Your task to perform on an android device: What's the weather today? Image 0: 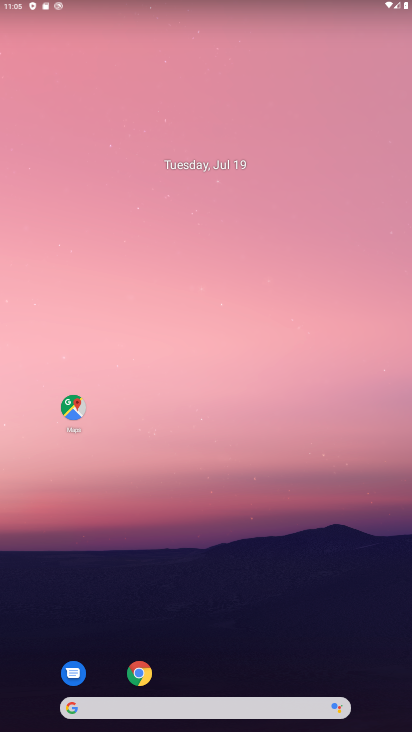
Step 0: click (204, 701)
Your task to perform on an android device: What's the weather today? Image 1: 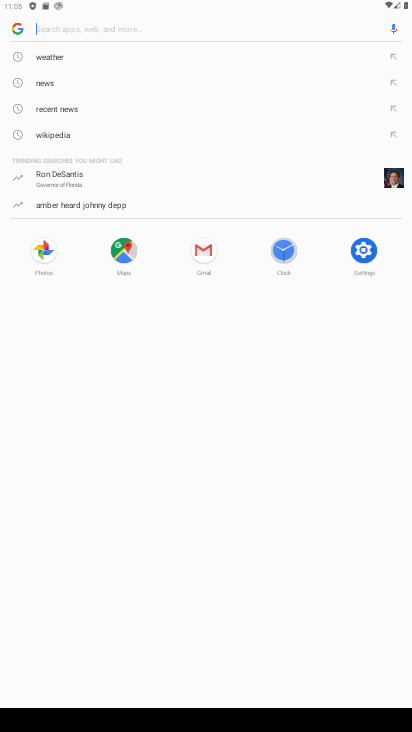
Step 1: type "what's the weather today"
Your task to perform on an android device: What's the weather today? Image 2: 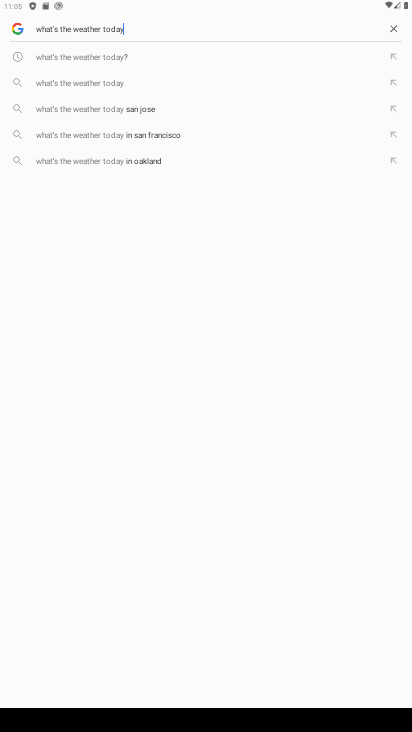
Step 2: click (90, 59)
Your task to perform on an android device: What's the weather today? Image 3: 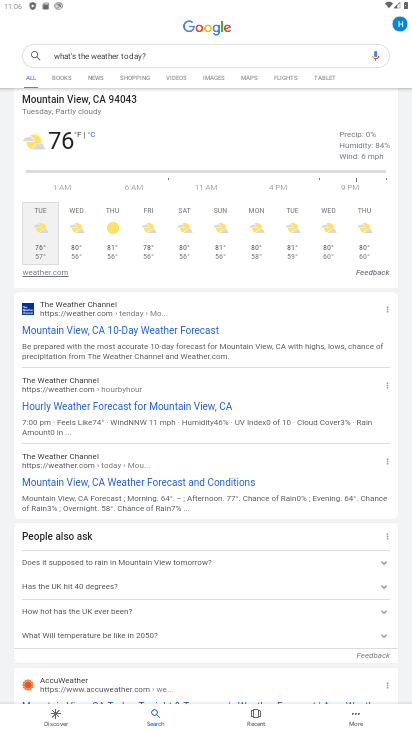
Step 3: task complete